Your task to perform on an android device: delete browsing data in the chrome app Image 0: 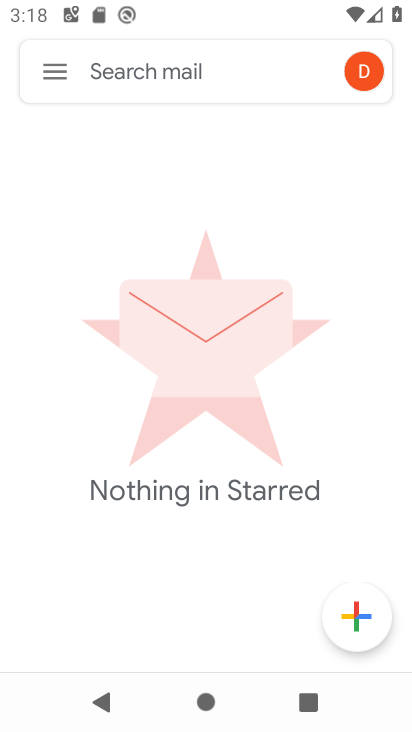
Step 0: press home button
Your task to perform on an android device: delete browsing data in the chrome app Image 1: 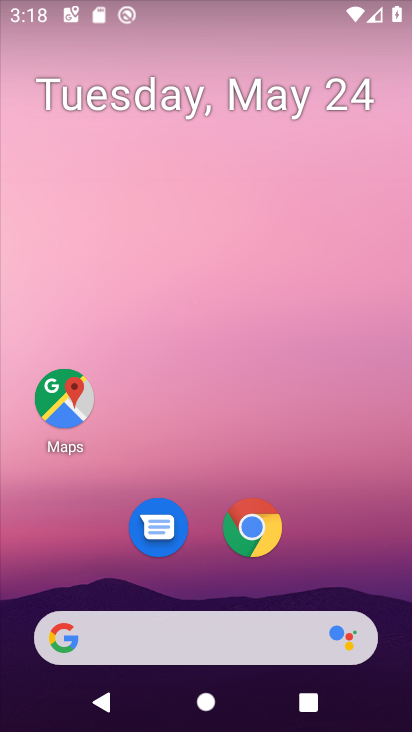
Step 1: click (257, 532)
Your task to perform on an android device: delete browsing data in the chrome app Image 2: 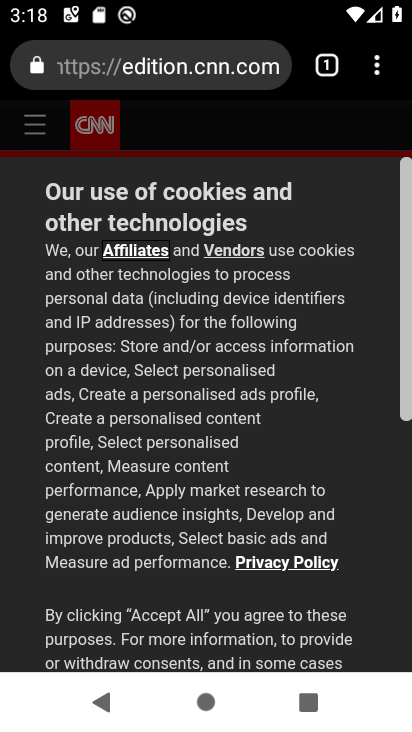
Step 2: click (379, 70)
Your task to perform on an android device: delete browsing data in the chrome app Image 3: 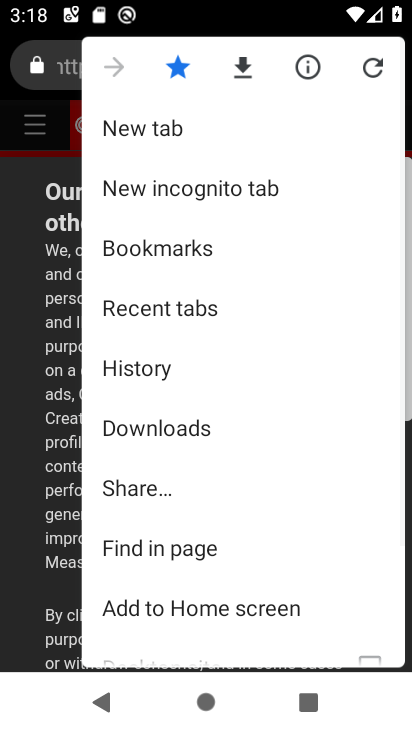
Step 3: drag from (265, 517) to (278, 186)
Your task to perform on an android device: delete browsing data in the chrome app Image 4: 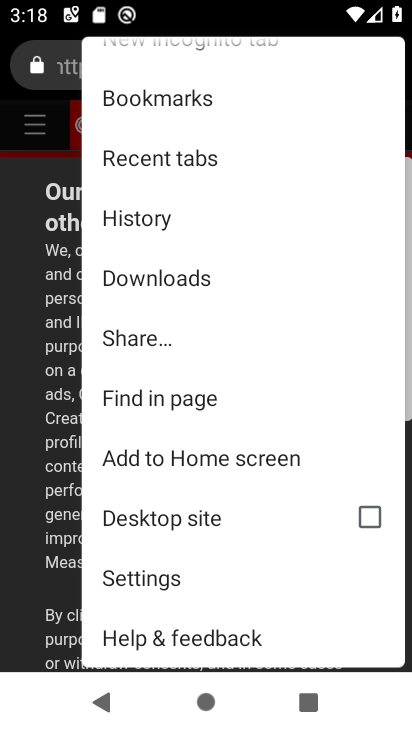
Step 4: click (148, 578)
Your task to perform on an android device: delete browsing data in the chrome app Image 5: 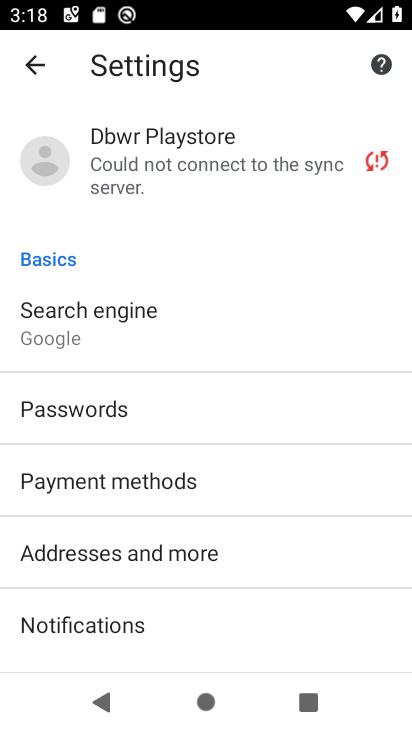
Step 5: drag from (258, 583) to (209, 247)
Your task to perform on an android device: delete browsing data in the chrome app Image 6: 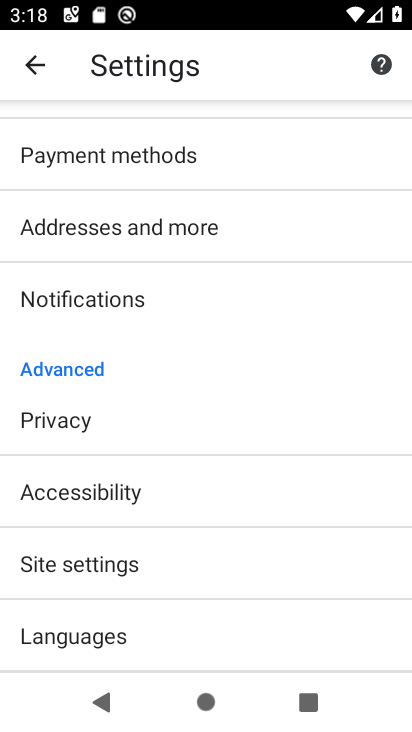
Step 6: click (76, 408)
Your task to perform on an android device: delete browsing data in the chrome app Image 7: 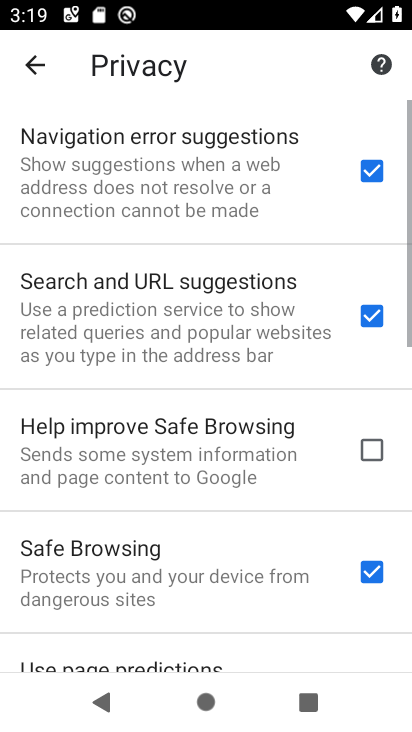
Step 7: drag from (194, 539) to (178, 127)
Your task to perform on an android device: delete browsing data in the chrome app Image 8: 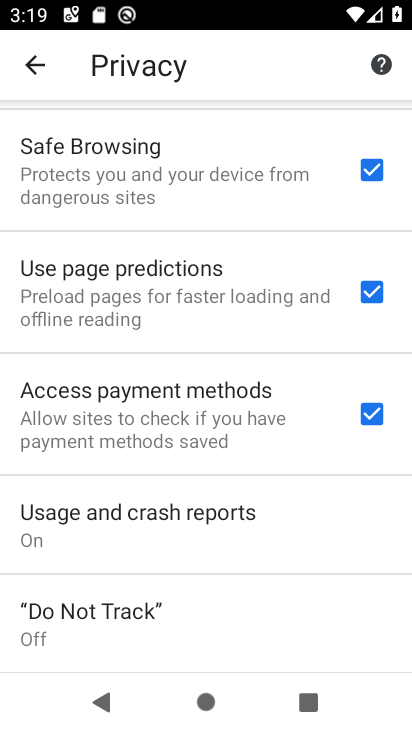
Step 8: drag from (202, 442) to (180, 141)
Your task to perform on an android device: delete browsing data in the chrome app Image 9: 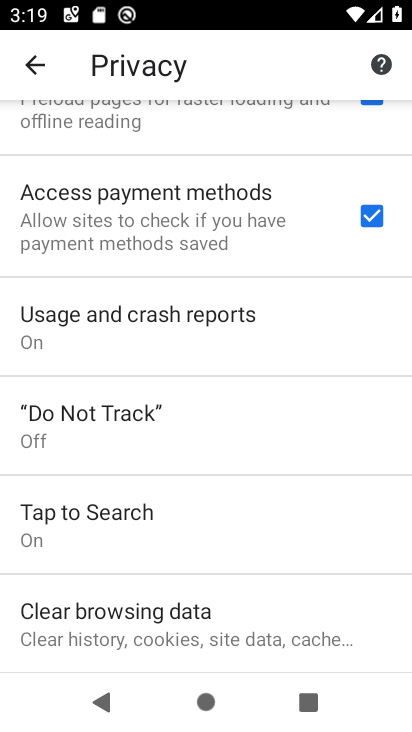
Step 9: click (92, 621)
Your task to perform on an android device: delete browsing data in the chrome app Image 10: 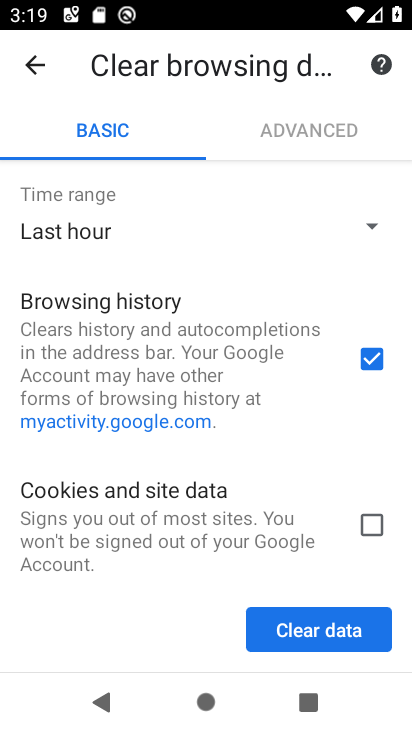
Step 10: drag from (162, 456) to (152, 199)
Your task to perform on an android device: delete browsing data in the chrome app Image 11: 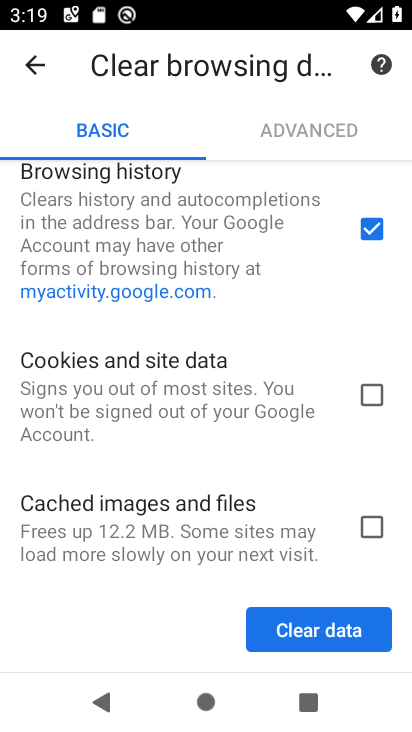
Step 11: click (299, 617)
Your task to perform on an android device: delete browsing data in the chrome app Image 12: 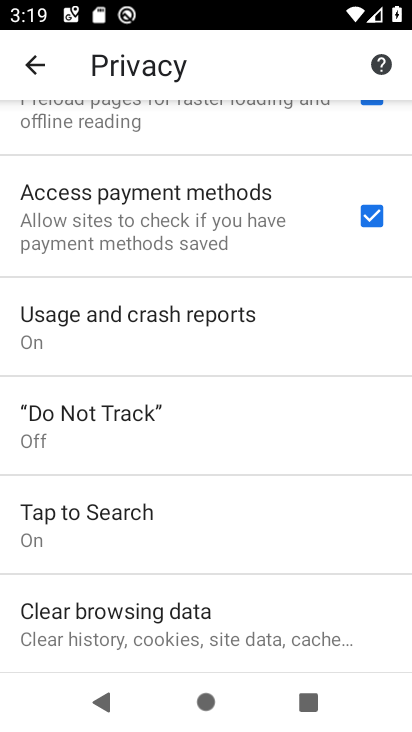
Step 12: task complete